Your task to perform on an android device: Open the calendar and show me this week's events? Image 0: 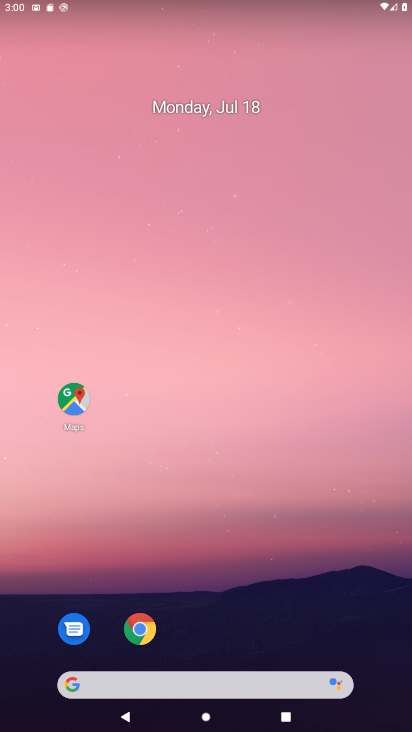
Step 0: drag from (328, 614) to (341, 181)
Your task to perform on an android device: Open the calendar and show me this week's events? Image 1: 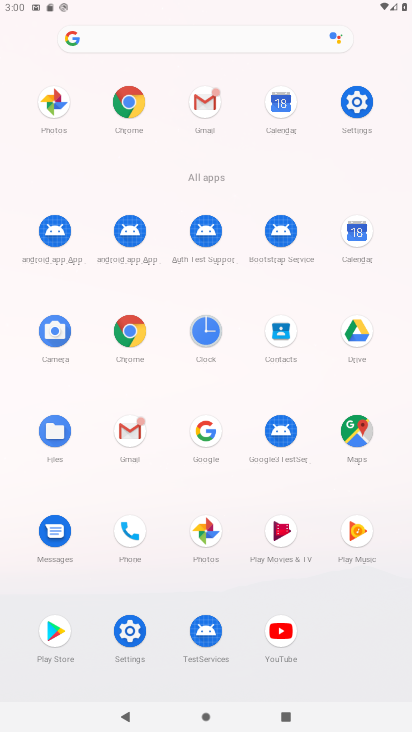
Step 1: click (355, 249)
Your task to perform on an android device: Open the calendar and show me this week's events? Image 2: 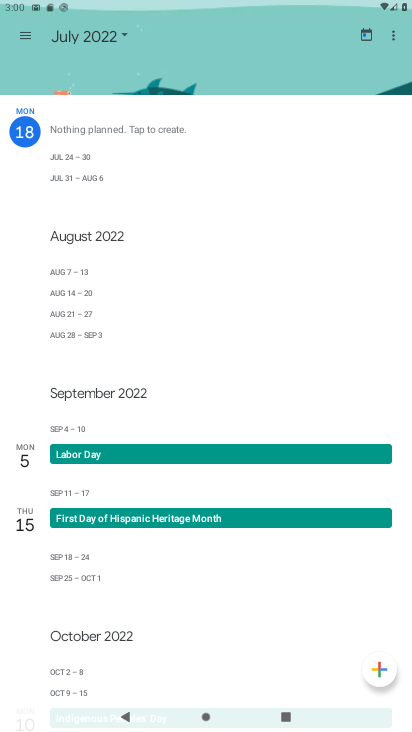
Step 2: drag from (324, 524) to (324, 424)
Your task to perform on an android device: Open the calendar and show me this week's events? Image 3: 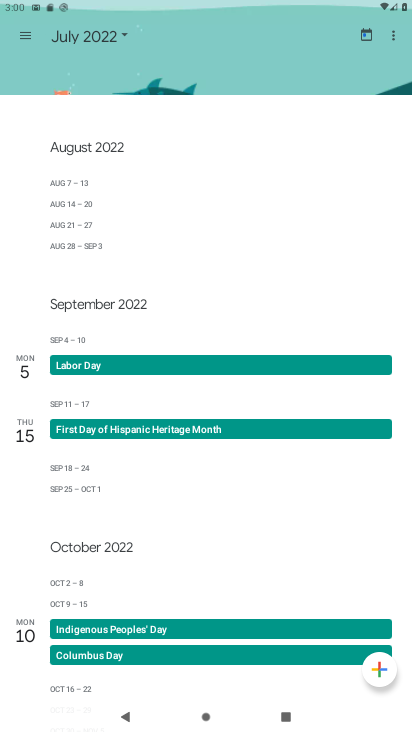
Step 3: drag from (321, 510) to (320, 404)
Your task to perform on an android device: Open the calendar and show me this week's events? Image 4: 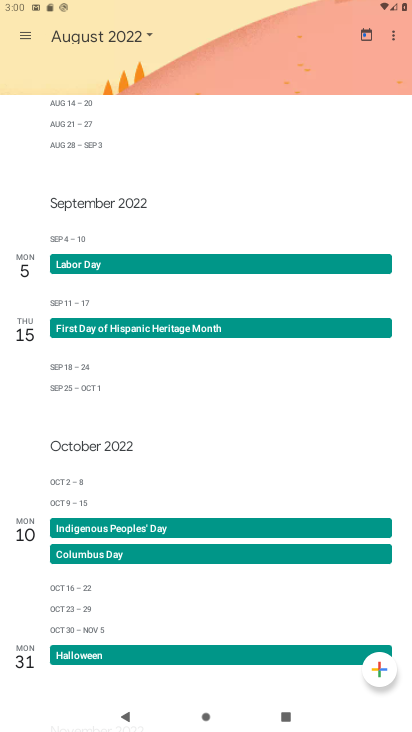
Step 4: drag from (321, 331) to (321, 452)
Your task to perform on an android device: Open the calendar and show me this week's events? Image 5: 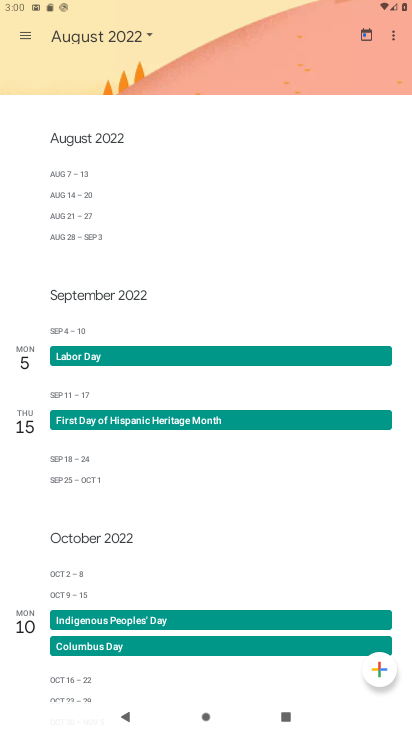
Step 5: drag from (297, 208) to (285, 328)
Your task to perform on an android device: Open the calendar and show me this week's events? Image 6: 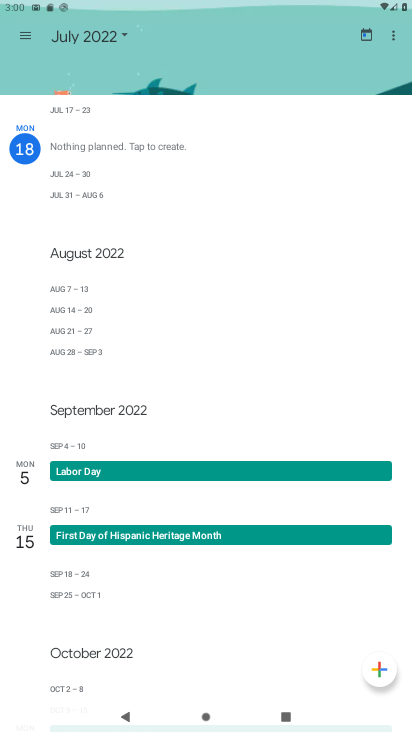
Step 6: click (125, 29)
Your task to perform on an android device: Open the calendar and show me this week's events? Image 7: 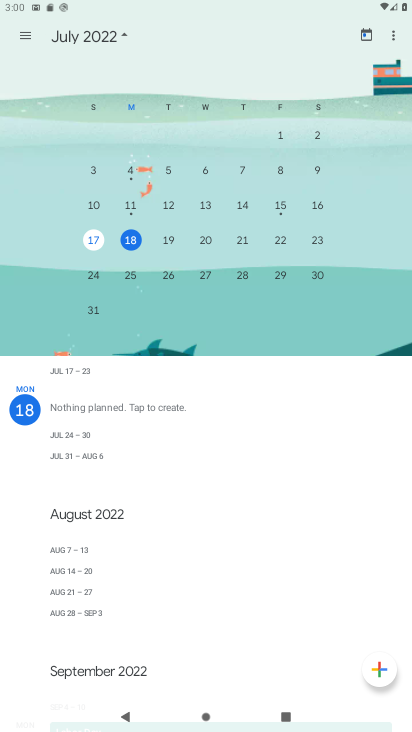
Step 7: click (170, 243)
Your task to perform on an android device: Open the calendar and show me this week's events? Image 8: 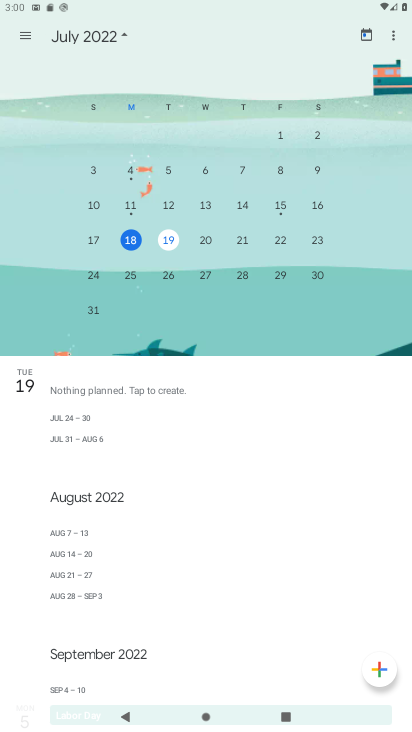
Step 8: task complete